Your task to perform on an android device: Open Google Chrome Image 0: 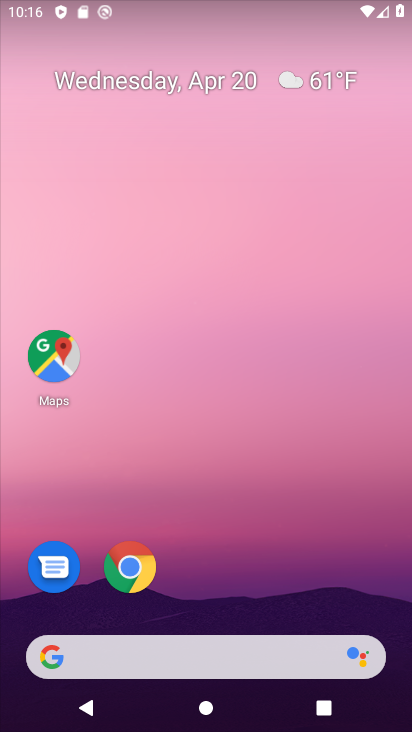
Step 0: click (123, 569)
Your task to perform on an android device: Open Google Chrome Image 1: 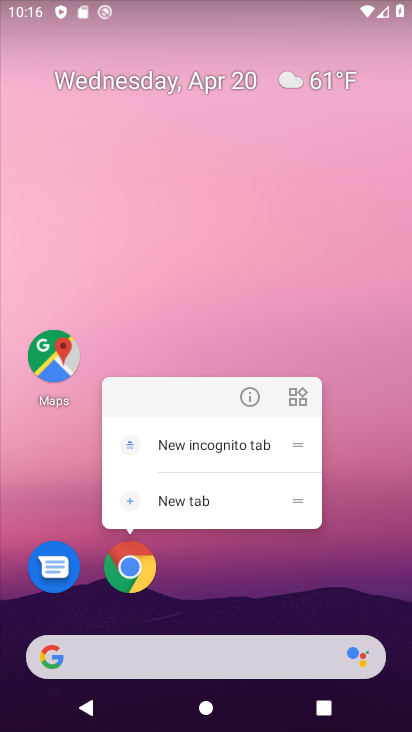
Step 1: click (123, 569)
Your task to perform on an android device: Open Google Chrome Image 2: 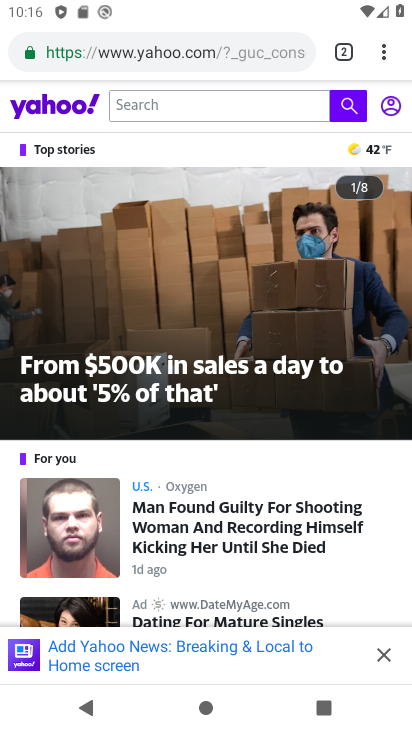
Step 2: task complete